Your task to perform on an android device: Open calendar and show me the third week of next month Image 0: 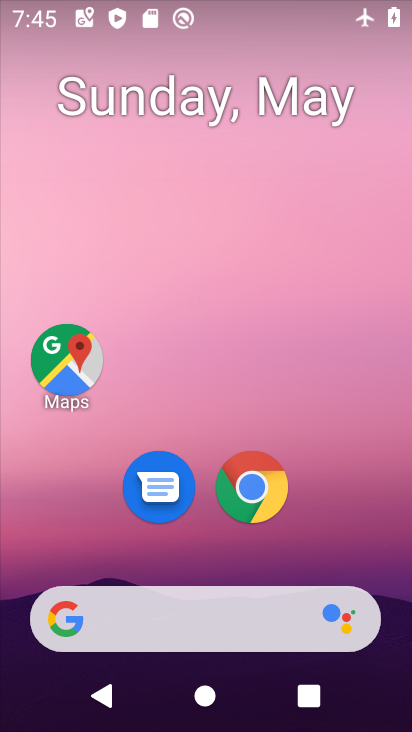
Step 0: drag from (377, 559) to (378, 159)
Your task to perform on an android device: Open calendar and show me the third week of next month Image 1: 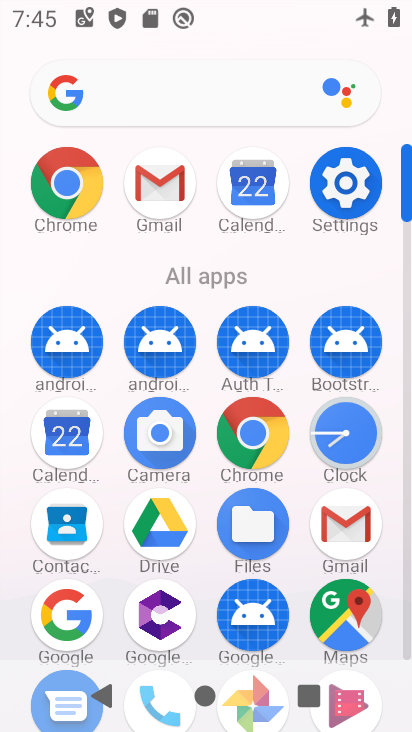
Step 1: click (67, 454)
Your task to perform on an android device: Open calendar and show me the third week of next month Image 2: 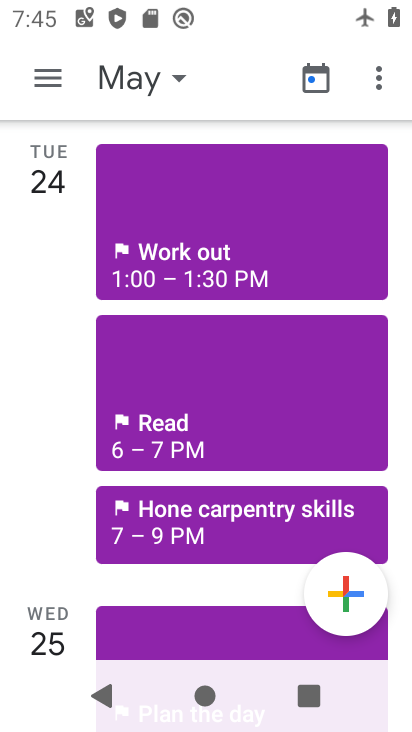
Step 2: click (186, 80)
Your task to perform on an android device: Open calendar and show me the third week of next month Image 3: 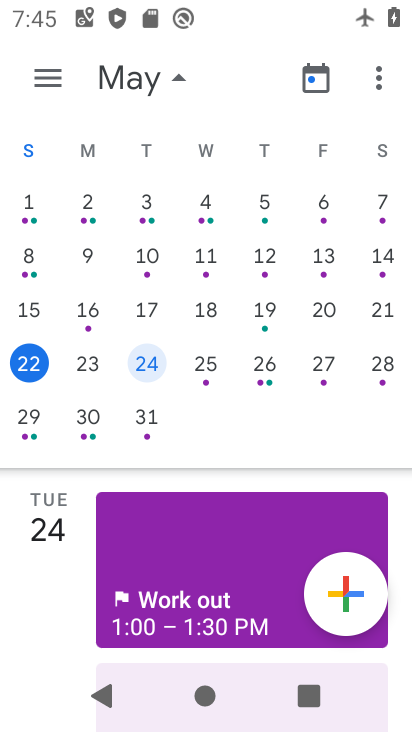
Step 3: drag from (392, 123) to (9, 124)
Your task to perform on an android device: Open calendar and show me the third week of next month Image 4: 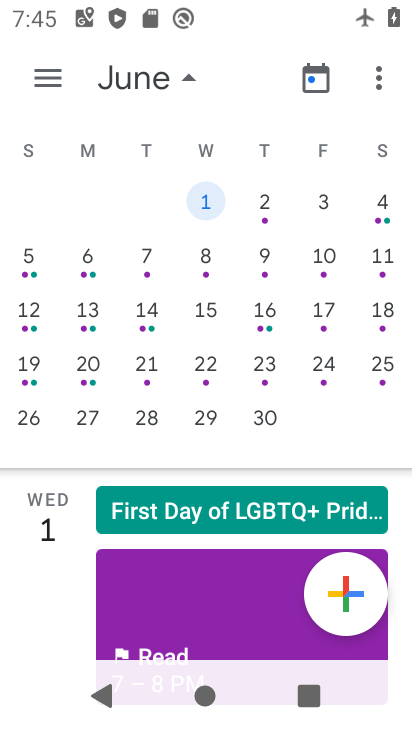
Step 4: click (81, 368)
Your task to perform on an android device: Open calendar and show me the third week of next month Image 5: 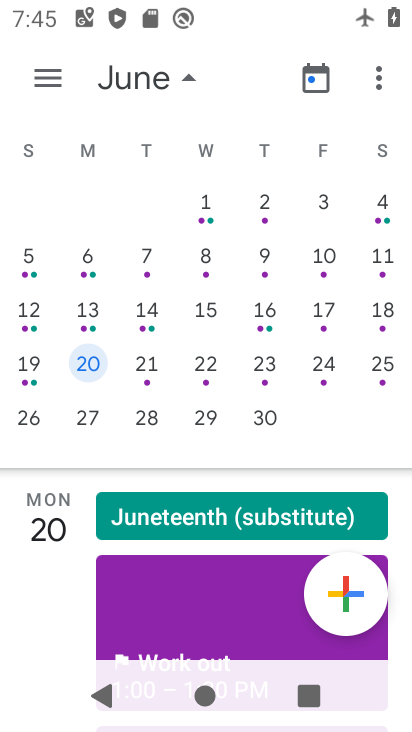
Step 5: task complete